Your task to perform on an android device: open app "Firefox Browser" Image 0: 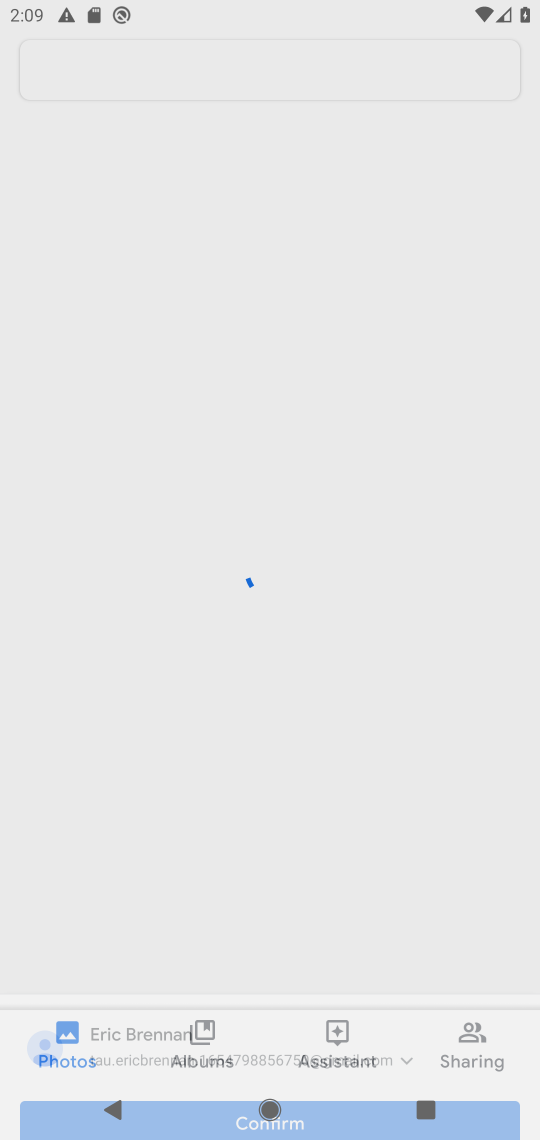
Step 0: press home button
Your task to perform on an android device: open app "Firefox Browser" Image 1: 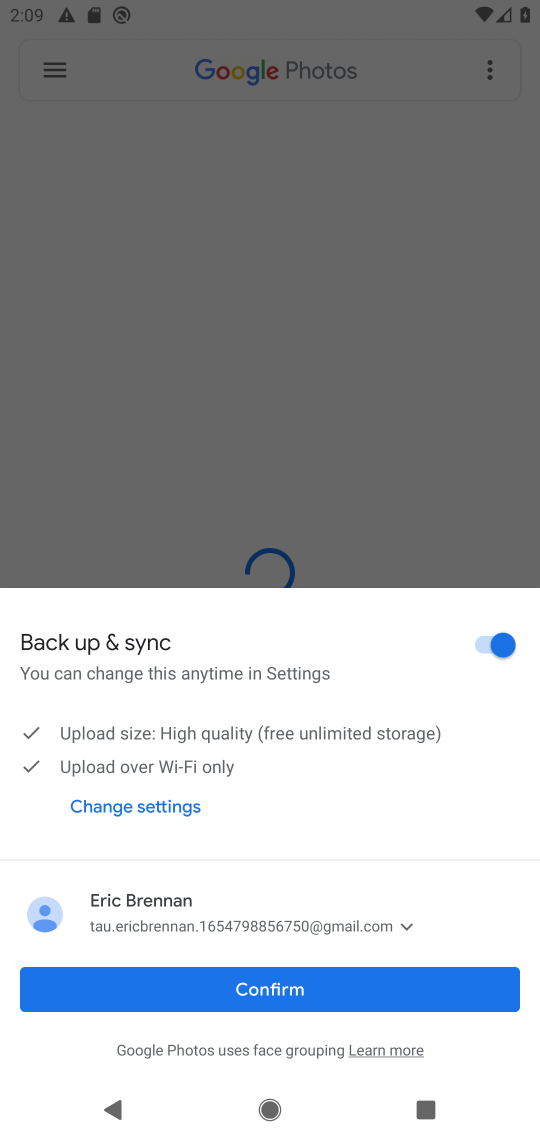
Step 1: press home button
Your task to perform on an android device: open app "Firefox Browser" Image 2: 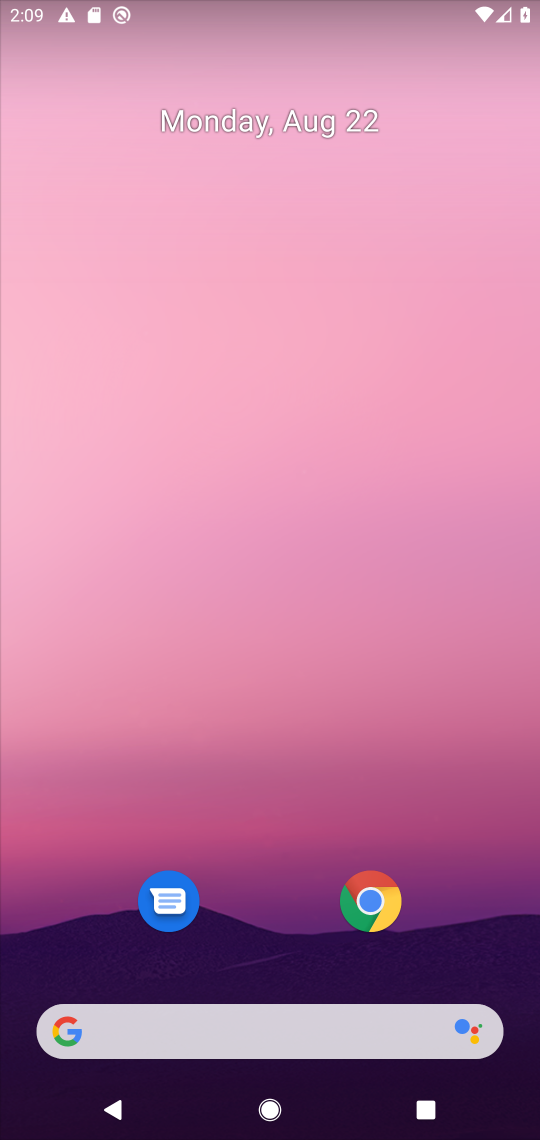
Step 2: drag from (475, 978) to (346, 233)
Your task to perform on an android device: open app "Firefox Browser" Image 3: 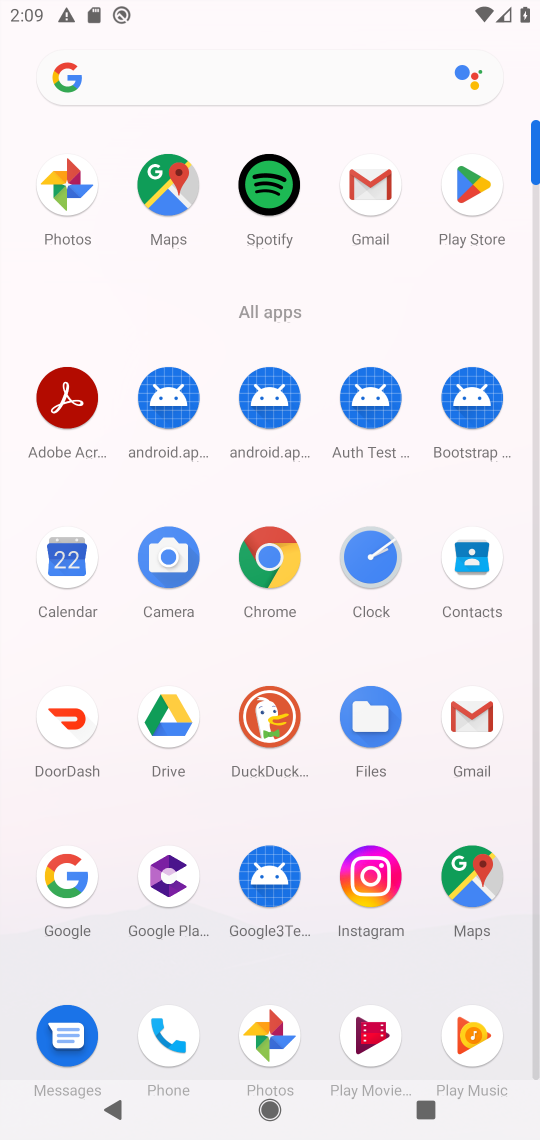
Step 3: click (474, 182)
Your task to perform on an android device: open app "Firefox Browser" Image 4: 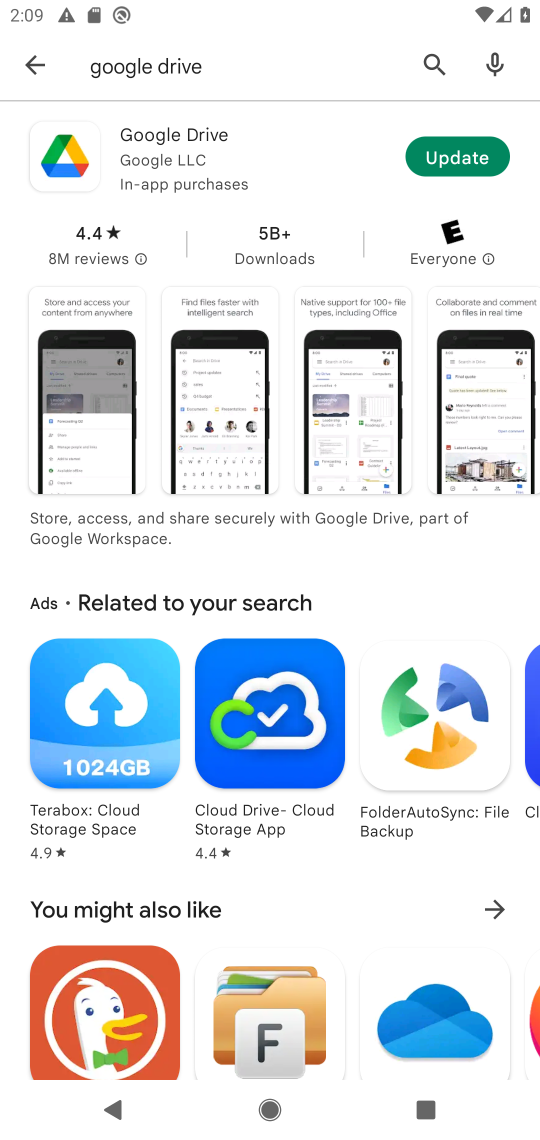
Step 4: click (421, 56)
Your task to perform on an android device: open app "Firefox Browser" Image 5: 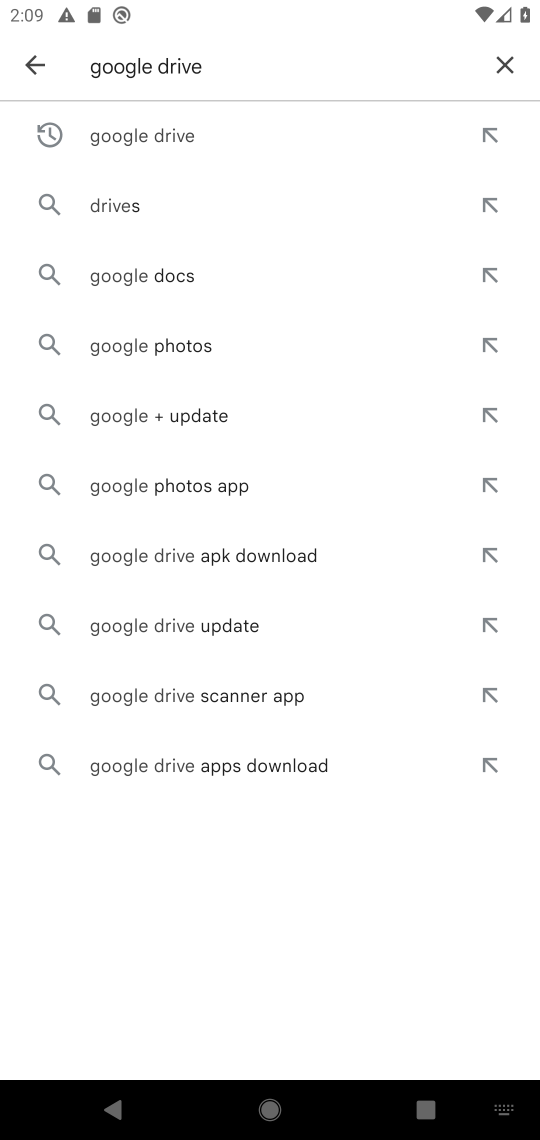
Step 5: click (502, 62)
Your task to perform on an android device: open app "Firefox Browser" Image 6: 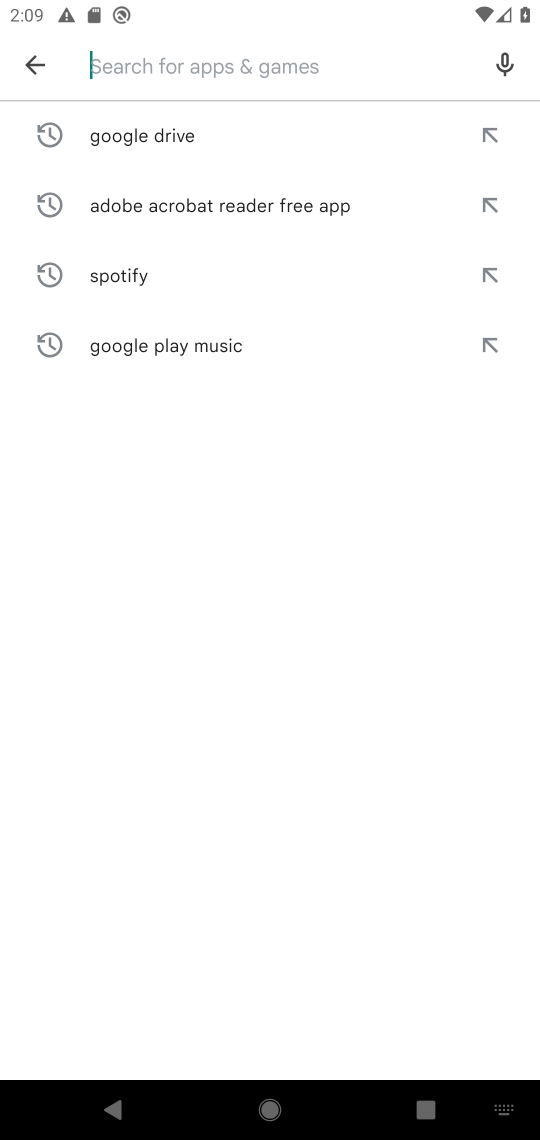
Step 6: type "Firefox Browser"
Your task to perform on an android device: open app "Firefox Browser" Image 7: 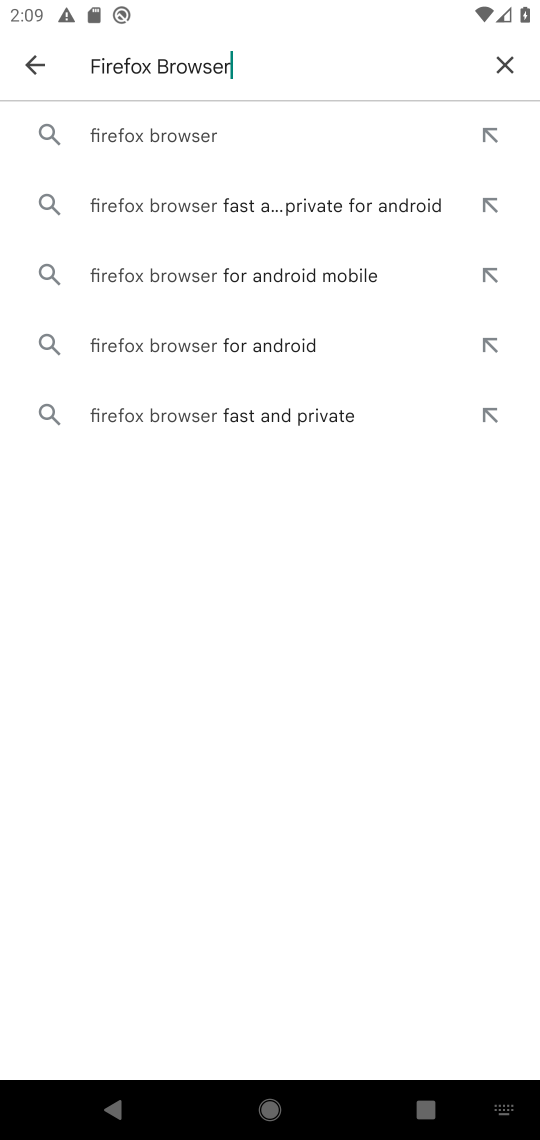
Step 7: click (149, 138)
Your task to perform on an android device: open app "Firefox Browser" Image 8: 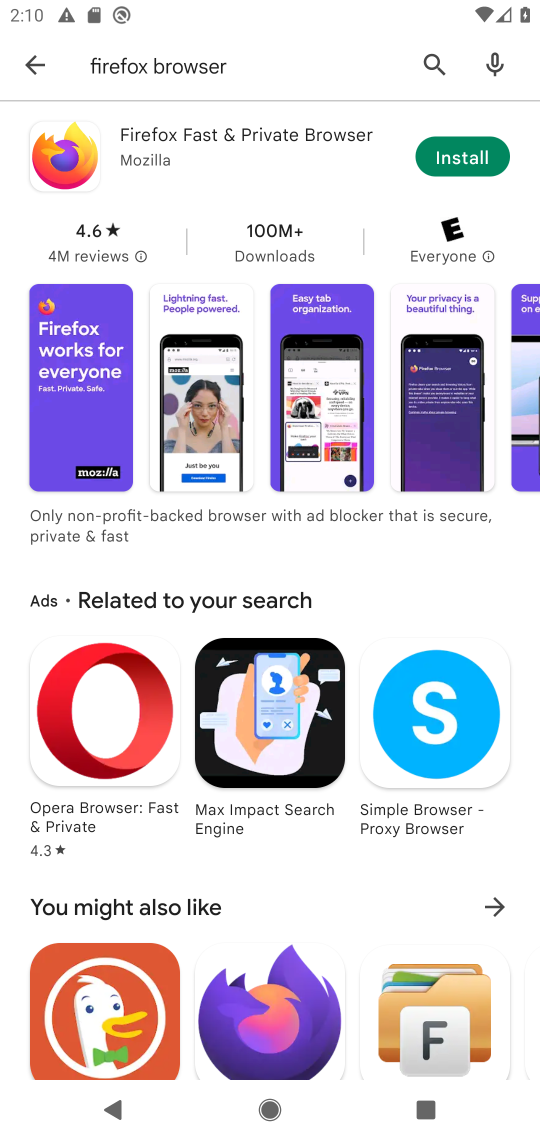
Step 8: task complete